Your task to perform on an android device: find snoozed emails in the gmail app Image 0: 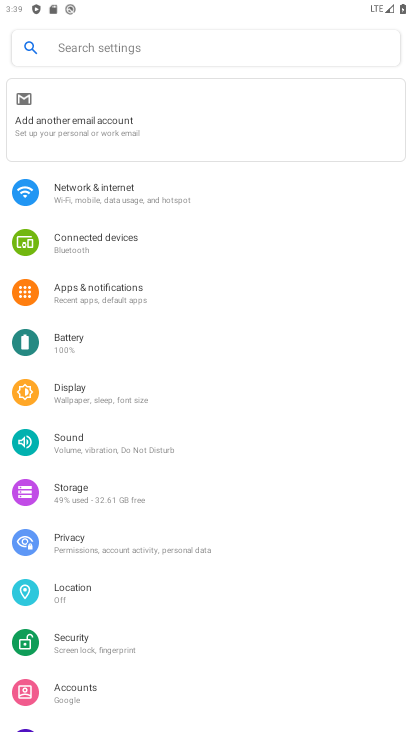
Step 0: press home button
Your task to perform on an android device: find snoozed emails in the gmail app Image 1: 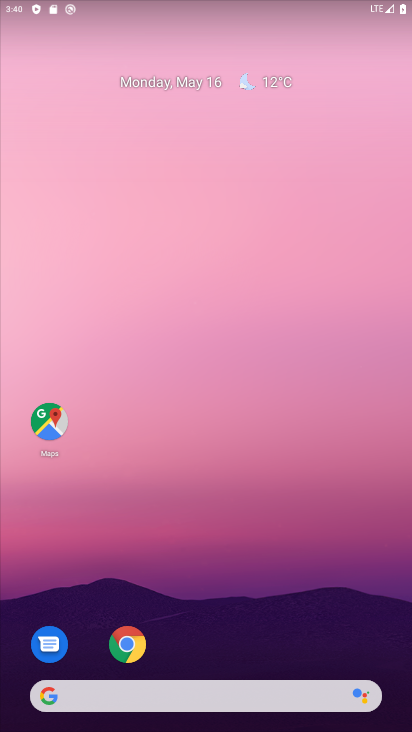
Step 1: drag from (247, 577) to (190, 102)
Your task to perform on an android device: find snoozed emails in the gmail app Image 2: 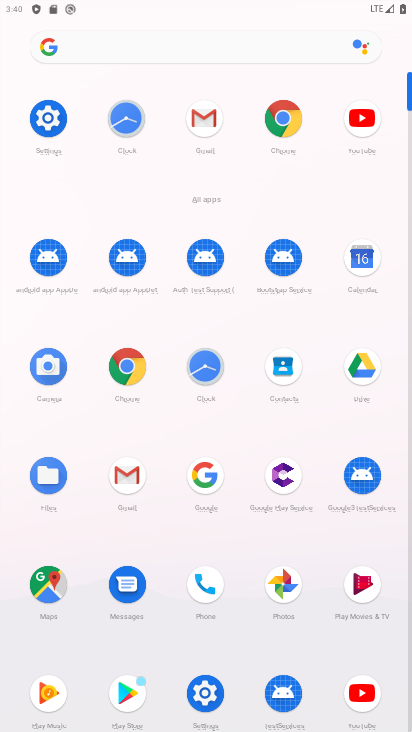
Step 2: click (122, 470)
Your task to perform on an android device: find snoozed emails in the gmail app Image 3: 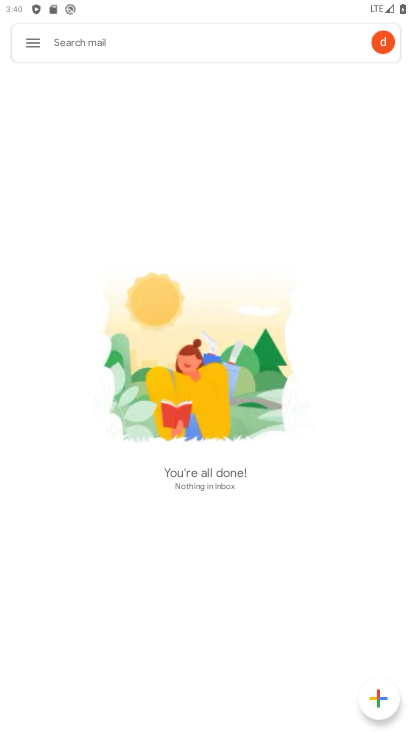
Step 3: click (33, 42)
Your task to perform on an android device: find snoozed emails in the gmail app Image 4: 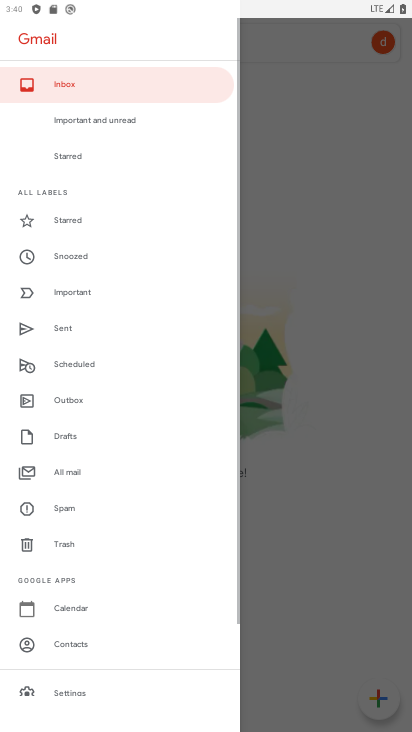
Step 4: click (79, 257)
Your task to perform on an android device: find snoozed emails in the gmail app Image 5: 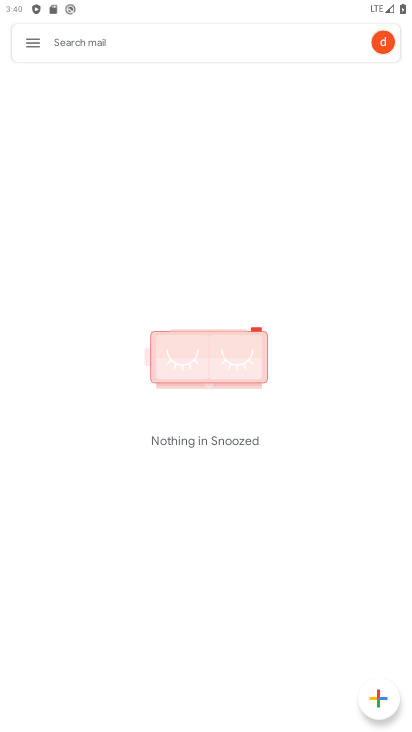
Step 5: task complete